Your task to perform on an android device: turn off notifications settings in the gmail app Image 0: 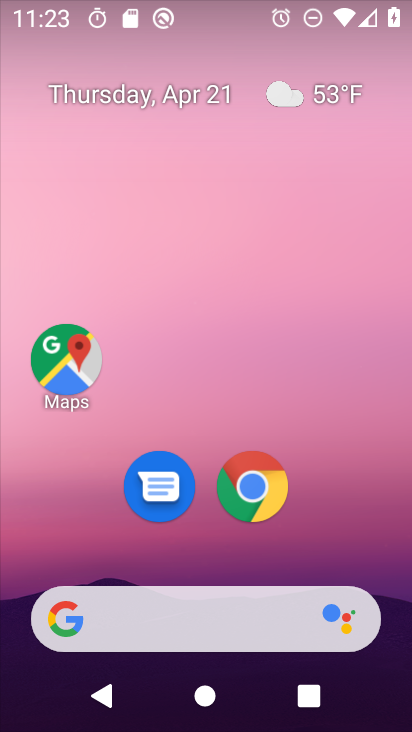
Step 0: drag from (396, 602) to (387, 343)
Your task to perform on an android device: turn off notifications settings in the gmail app Image 1: 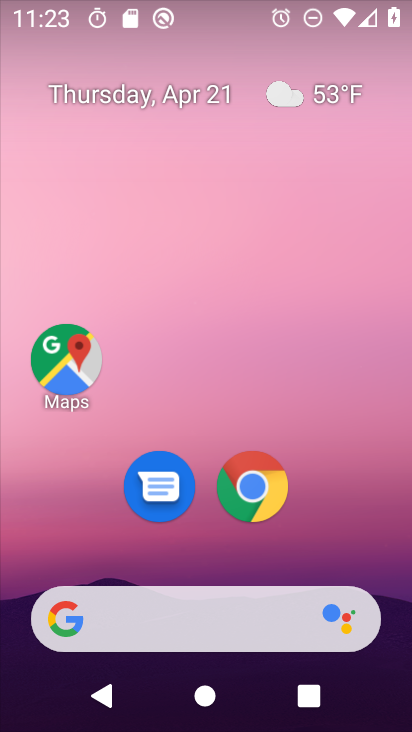
Step 1: drag from (398, 640) to (375, 214)
Your task to perform on an android device: turn off notifications settings in the gmail app Image 2: 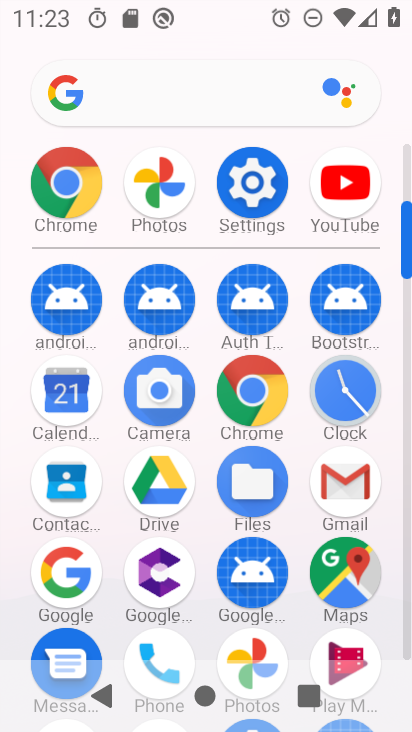
Step 2: click (337, 465)
Your task to perform on an android device: turn off notifications settings in the gmail app Image 3: 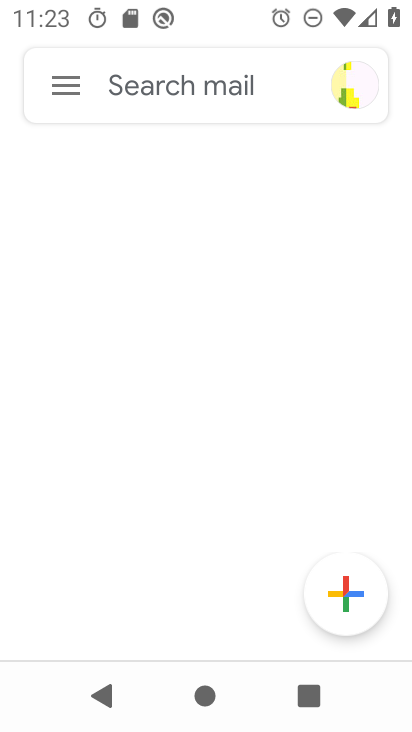
Step 3: click (70, 79)
Your task to perform on an android device: turn off notifications settings in the gmail app Image 4: 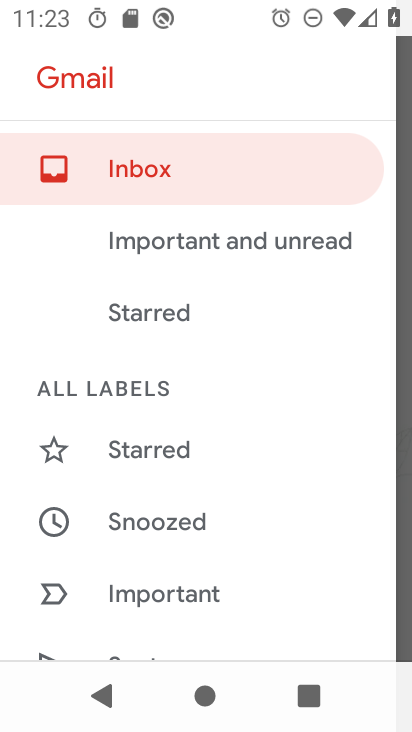
Step 4: drag from (283, 607) to (277, 166)
Your task to perform on an android device: turn off notifications settings in the gmail app Image 5: 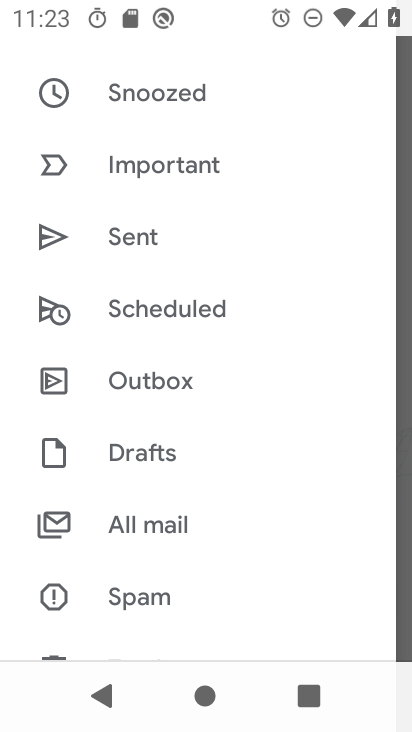
Step 5: drag from (332, 582) to (341, 207)
Your task to perform on an android device: turn off notifications settings in the gmail app Image 6: 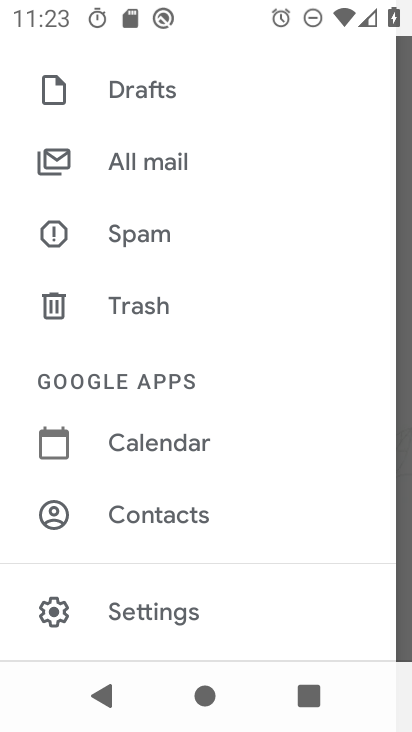
Step 6: click (49, 611)
Your task to perform on an android device: turn off notifications settings in the gmail app Image 7: 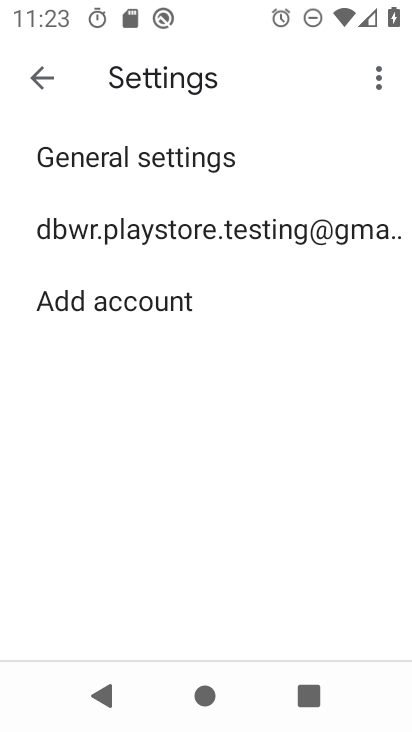
Step 7: click (162, 145)
Your task to perform on an android device: turn off notifications settings in the gmail app Image 8: 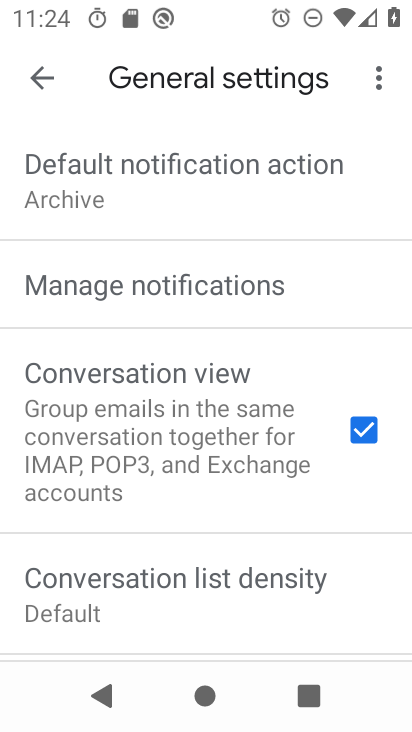
Step 8: click (78, 279)
Your task to perform on an android device: turn off notifications settings in the gmail app Image 9: 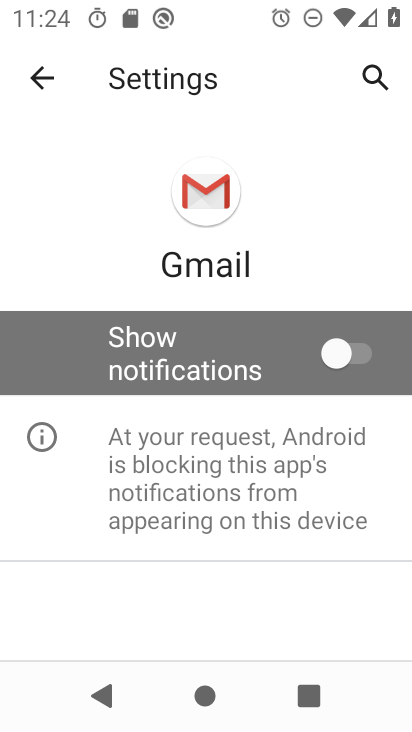
Step 9: task complete